Your task to perform on an android device: Open Yahoo.com Image 0: 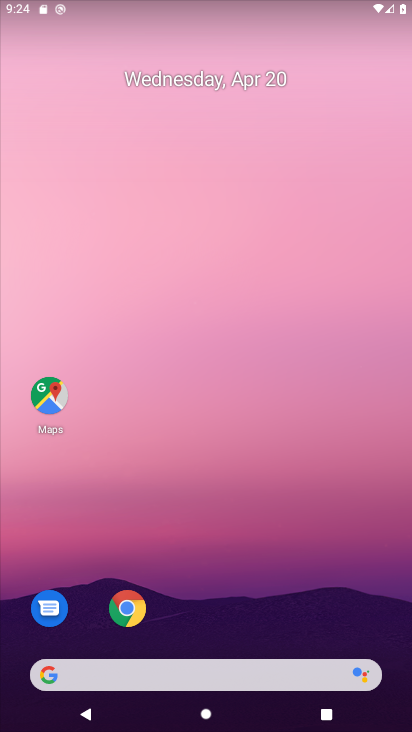
Step 0: click (126, 600)
Your task to perform on an android device: Open Yahoo.com Image 1: 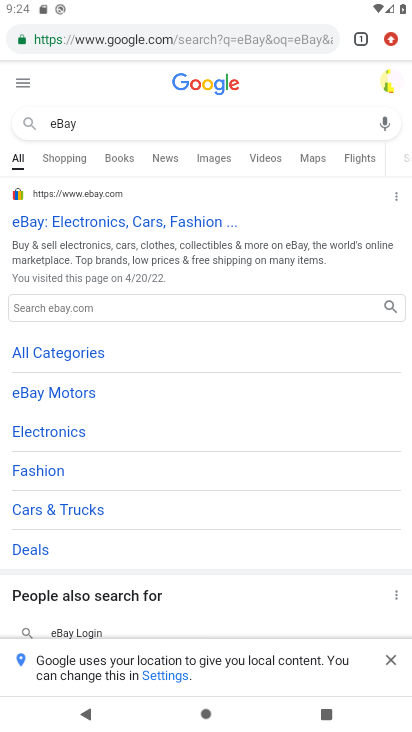
Step 1: click (167, 34)
Your task to perform on an android device: Open Yahoo.com Image 2: 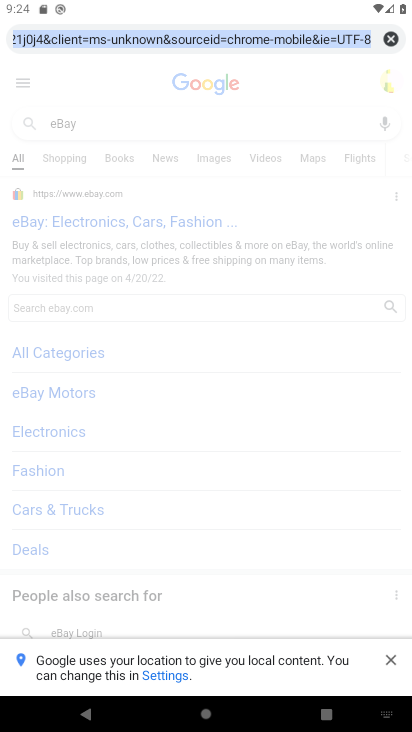
Step 2: type "yahoo.com"
Your task to perform on an android device: Open Yahoo.com Image 3: 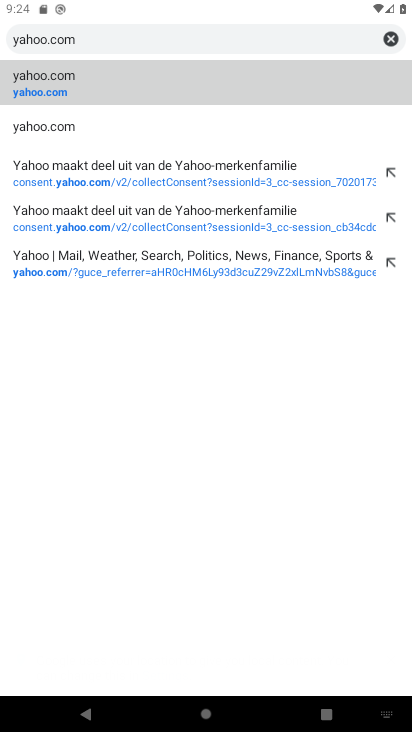
Step 3: click (108, 81)
Your task to perform on an android device: Open Yahoo.com Image 4: 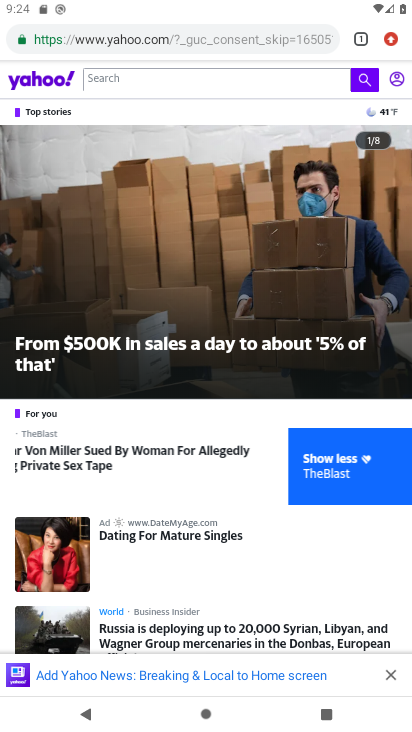
Step 4: task complete